Your task to perform on an android device: Open eBay Image 0: 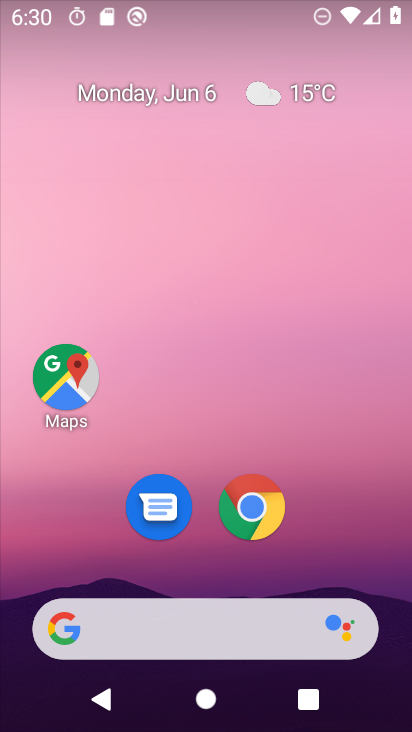
Step 0: click (246, 510)
Your task to perform on an android device: Open eBay Image 1: 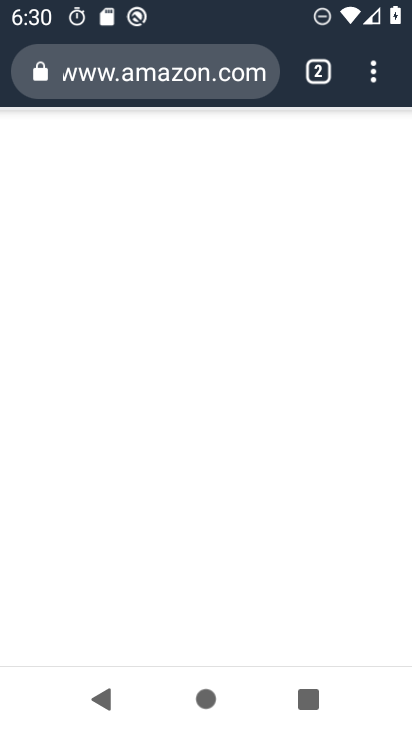
Step 1: press back button
Your task to perform on an android device: Open eBay Image 2: 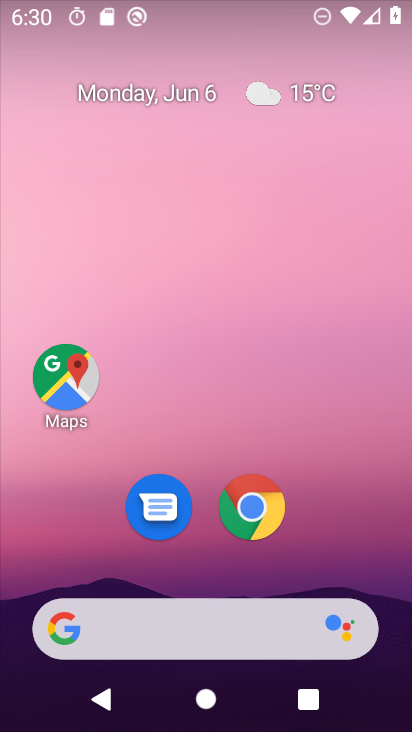
Step 2: click (246, 513)
Your task to perform on an android device: Open eBay Image 3: 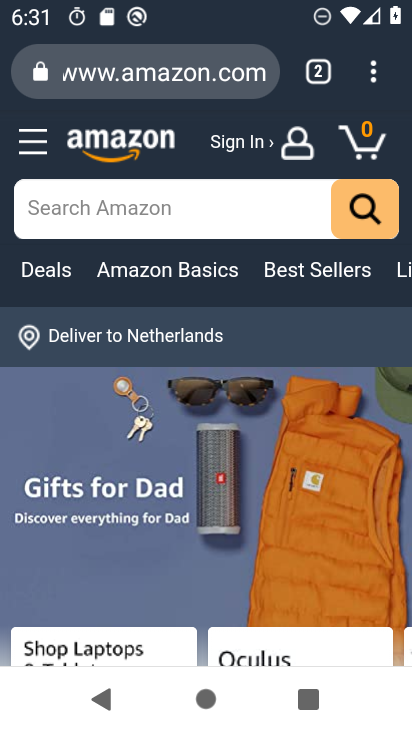
Step 3: click (311, 75)
Your task to perform on an android device: Open eBay Image 4: 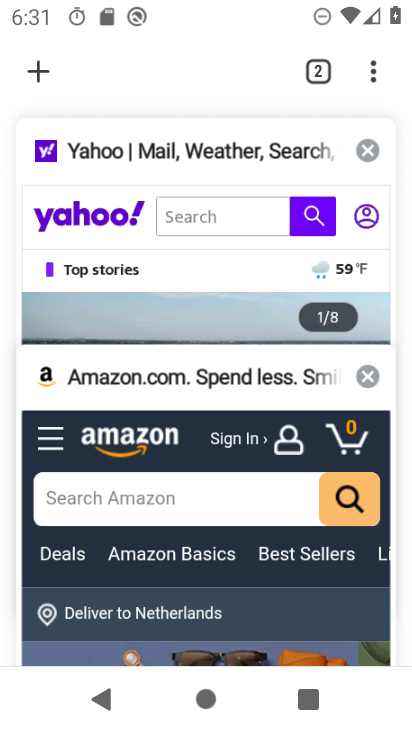
Step 4: click (33, 79)
Your task to perform on an android device: Open eBay Image 5: 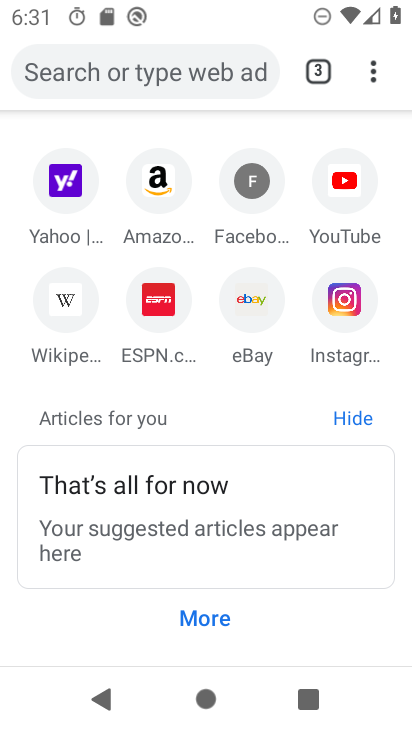
Step 5: click (256, 306)
Your task to perform on an android device: Open eBay Image 6: 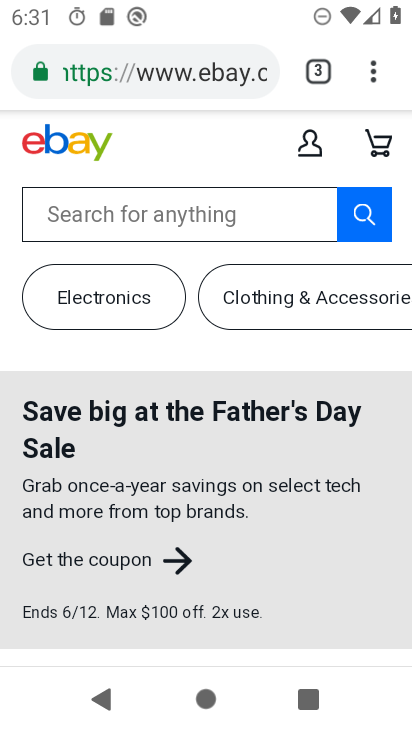
Step 6: task complete